Your task to perform on an android device: Go to Google maps Image 0: 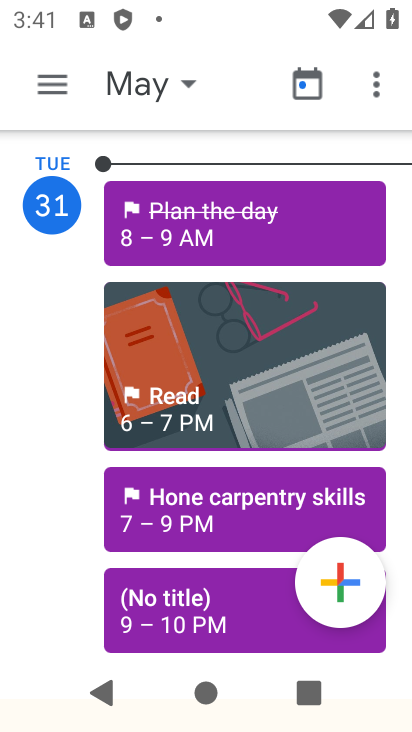
Step 0: task complete